Your task to perform on an android device: turn on data saver in the chrome app Image 0: 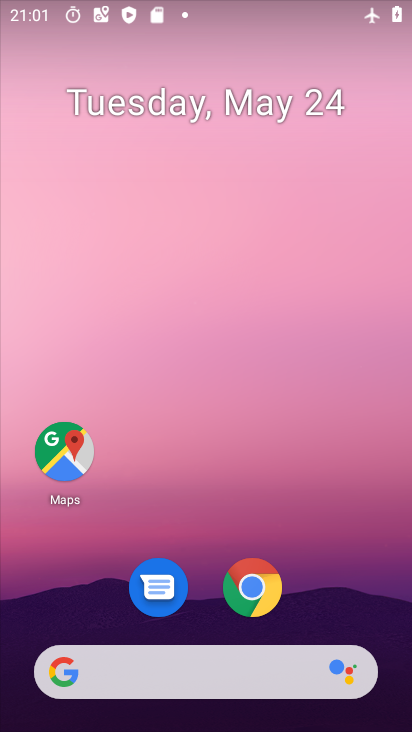
Step 0: drag from (293, 428) to (256, 17)
Your task to perform on an android device: turn on data saver in the chrome app Image 1: 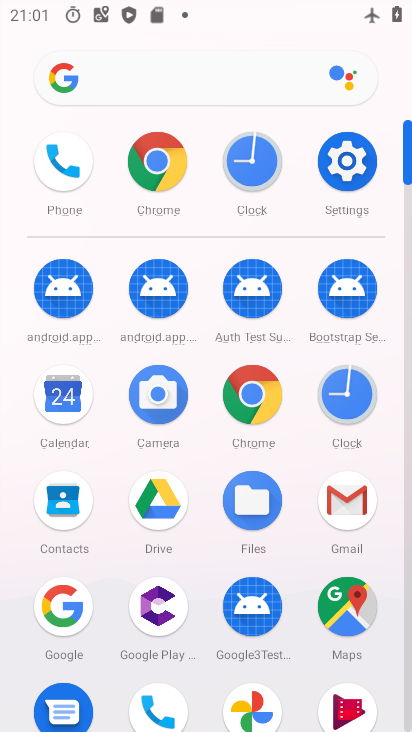
Step 1: drag from (14, 613) to (19, 238)
Your task to perform on an android device: turn on data saver in the chrome app Image 2: 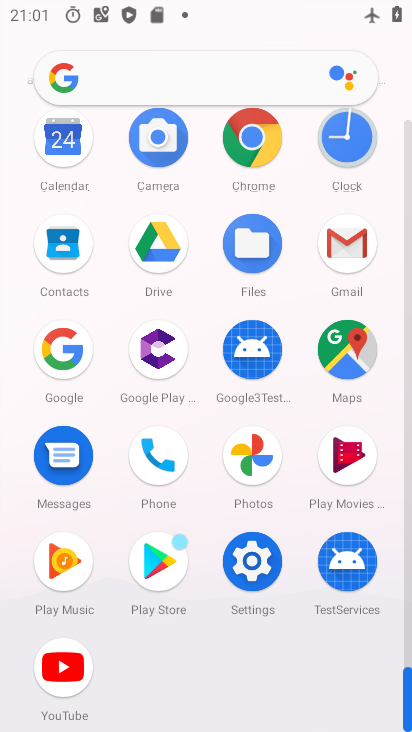
Step 2: click (251, 133)
Your task to perform on an android device: turn on data saver in the chrome app Image 3: 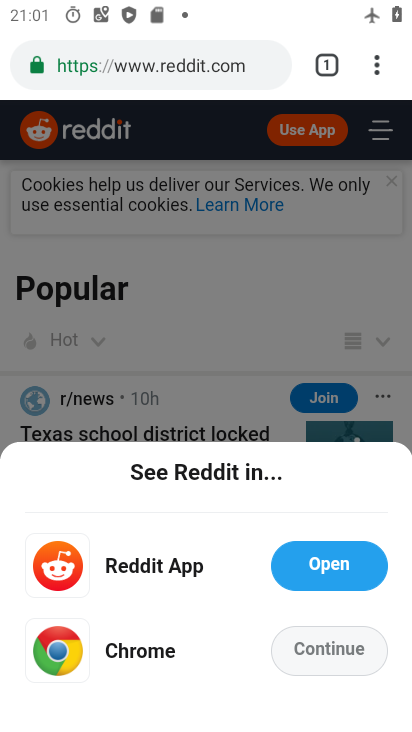
Step 3: drag from (374, 65) to (159, 632)
Your task to perform on an android device: turn on data saver in the chrome app Image 4: 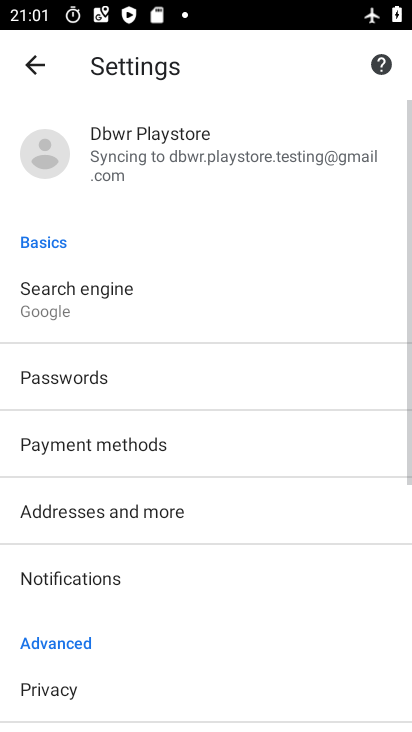
Step 4: drag from (222, 644) to (251, 165)
Your task to perform on an android device: turn on data saver in the chrome app Image 5: 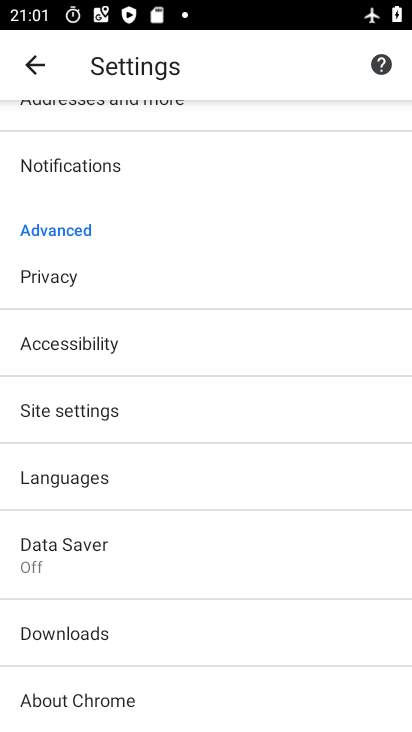
Step 5: drag from (198, 674) to (210, 319)
Your task to perform on an android device: turn on data saver in the chrome app Image 6: 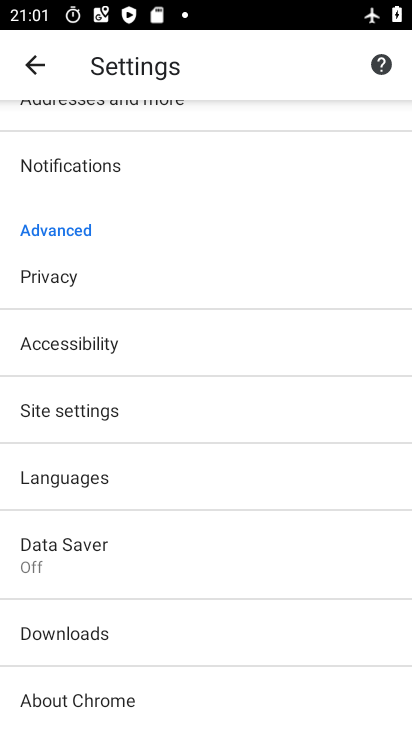
Step 6: click (126, 544)
Your task to perform on an android device: turn on data saver in the chrome app Image 7: 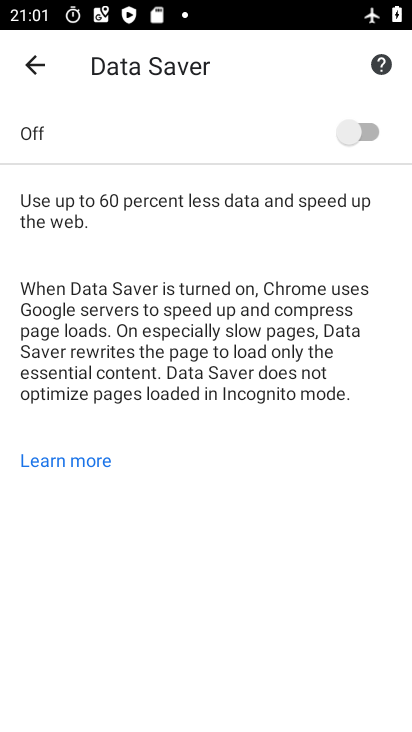
Step 7: click (366, 126)
Your task to perform on an android device: turn on data saver in the chrome app Image 8: 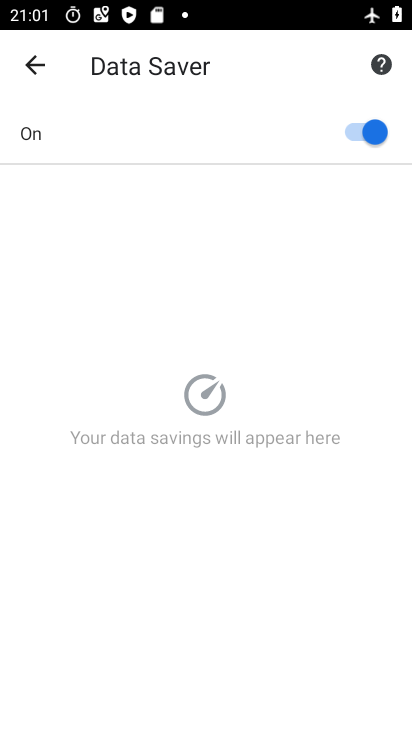
Step 8: task complete